Your task to perform on an android device: turn on the 24-hour format for clock Image 0: 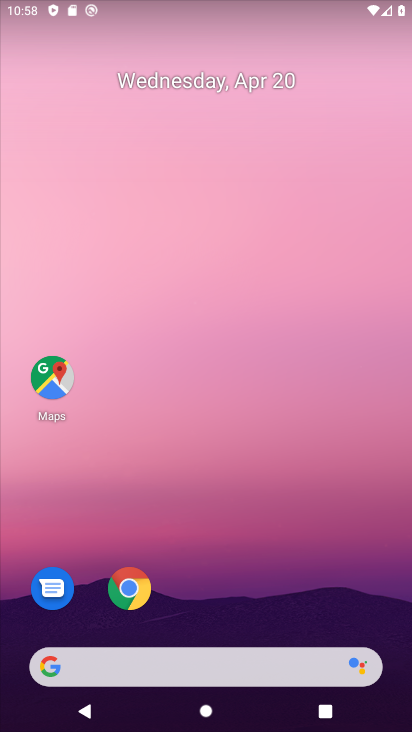
Step 0: drag from (235, 539) to (327, 99)
Your task to perform on an android device: turn on the 24-hour format for clock Image 1: 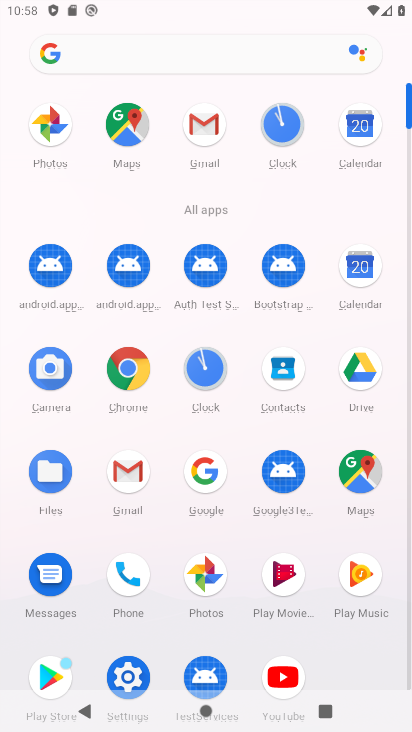
Step 1: click (201, 369)
Your task to perform on an android device: turn on the 24-hour format for clock Image 2: 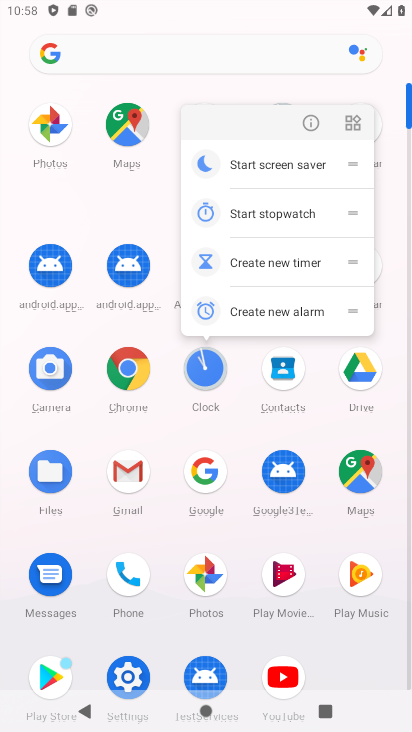
Step 2: click (210, 379)
Your task to perform on an android device: turn on the 24-hour format for clock Image 3: 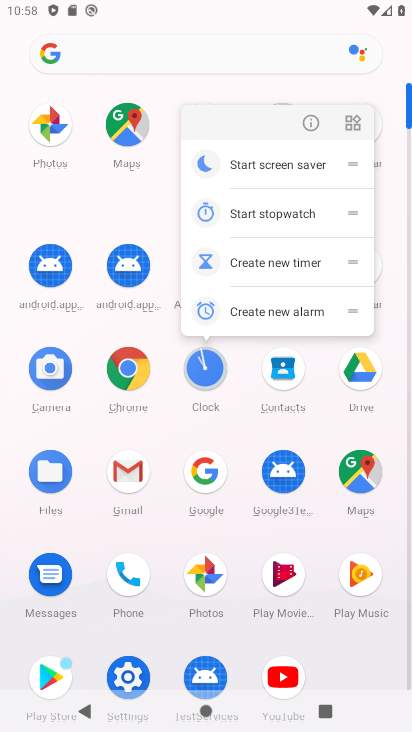
Step 3: click (209, 382)
Your task to perform on an android device: turn on the 24-hour format for clock Image 4: 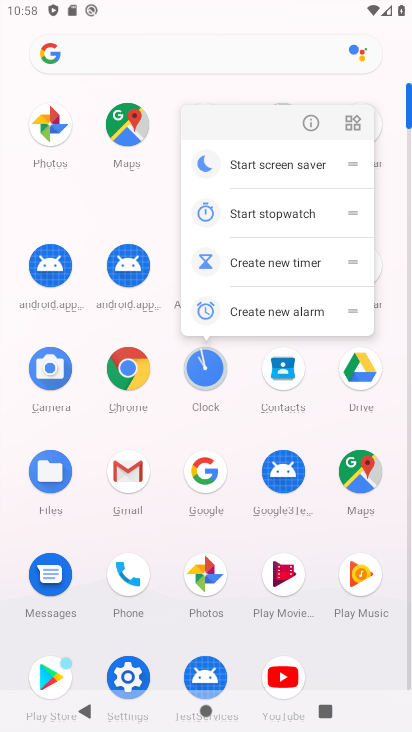
Step 4: click (208, 374)
Your task to perform on an android device: turn on the 24-hour format for clock Image 5: 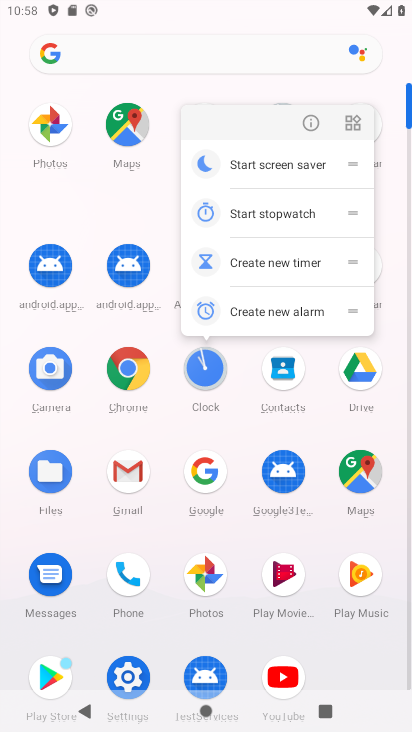
Step 5: click (222, 379)
Your task to perform on an android device: turn on the 24-hour format for clock Image 6: 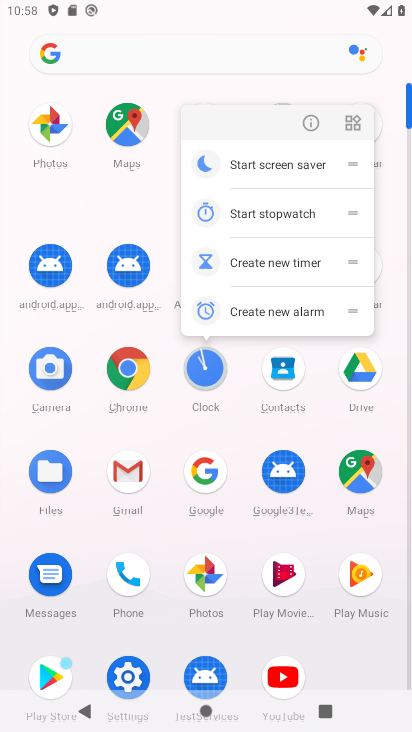
Step 6: click (200, 374)
Your task to perform on an android device: turn on the 24-hour format for clock Image 7: 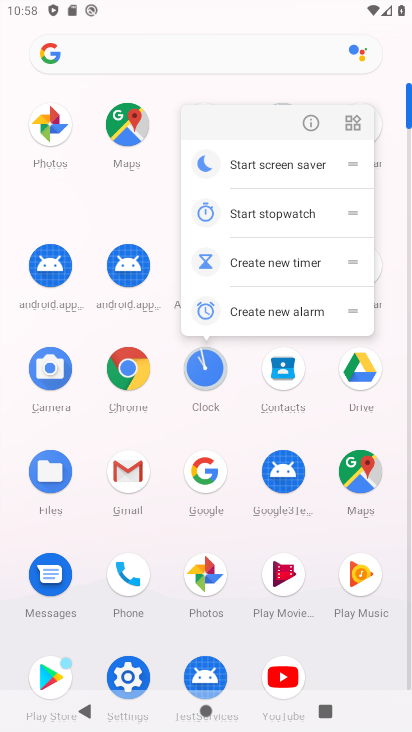
Step 7: click (197, 389)
Your task to perform on an android device: turn on the 24-hour format for clock Image 8: 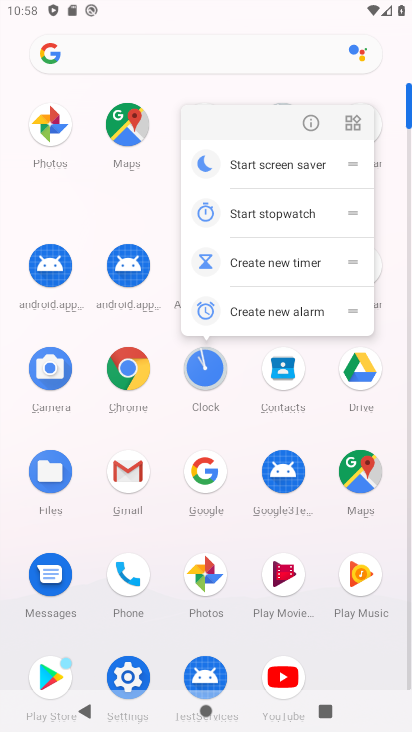
Step 8: click (205, 372)
Your task to perform on an android device: turn on the 24-hour format for clock Image 9: 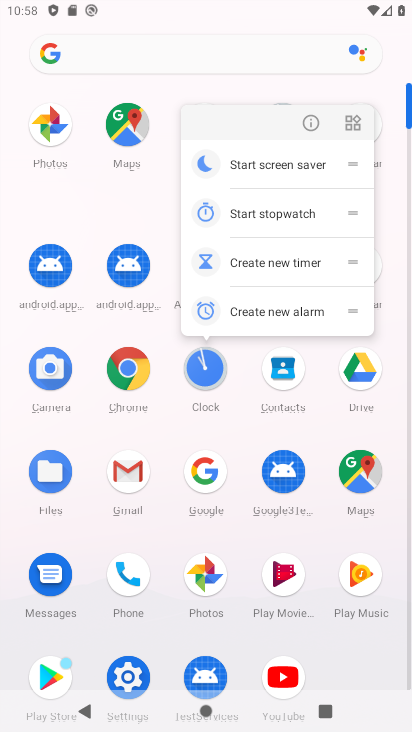
Step 9: click (204, 373)
Your task to perform on an android device: turn on the 24-hour format for clock Image 10: 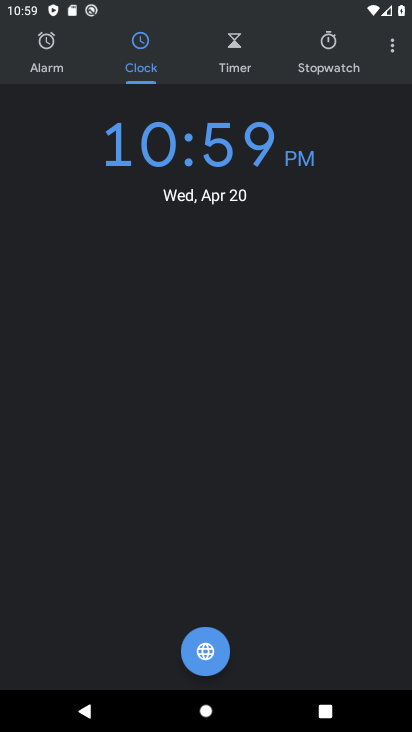
Step 10: click (390, 48)
Your task to perform on an android device: turn on the 24-hour format for clock Image 11: 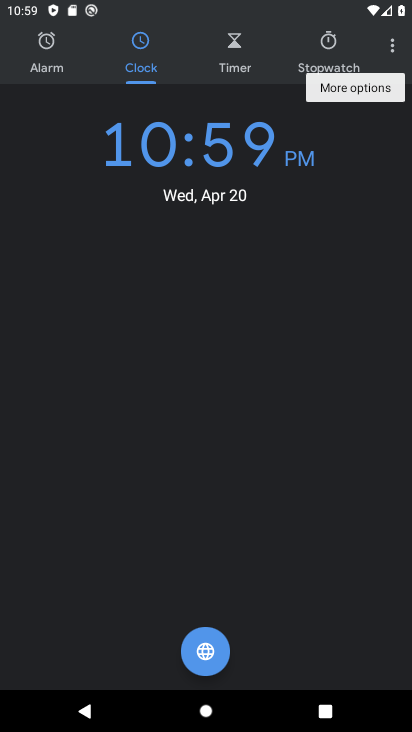
Step 11: click (374, 93)
Your task to perform on an android device: turn on the 24-hour format for clock Image 12: 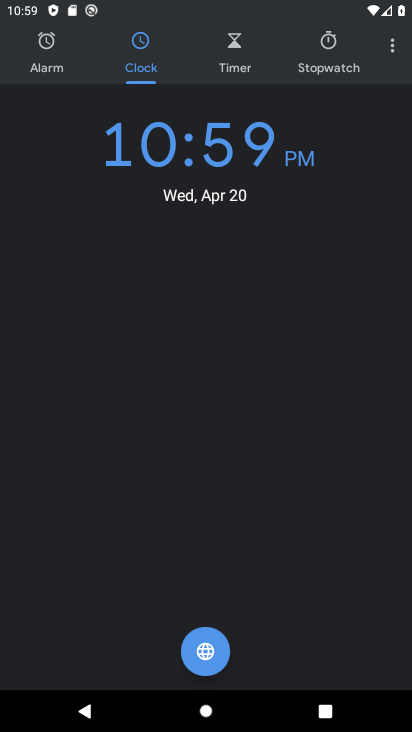
Step 12: click (400, 48)
Your task to perform on an android device: turn on the 24-hour format for clock Image 13: 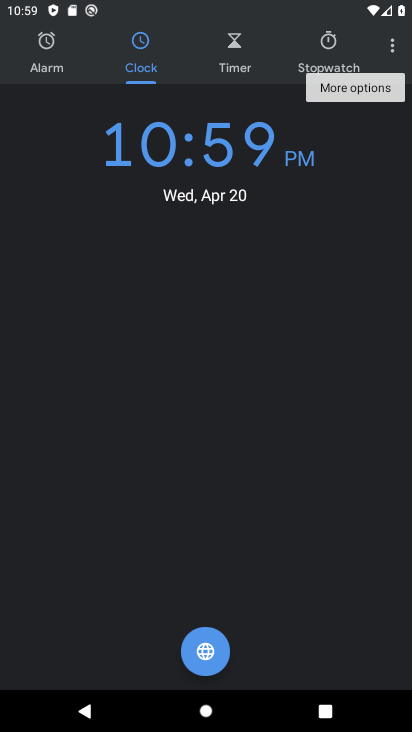
Step 13: click (383, 96)
Your task to perform on an android device: turn on the 24-hour format for clock Image 14: 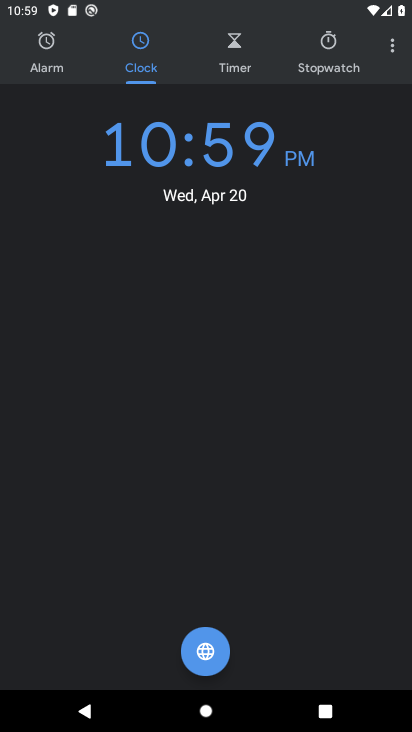
Step 14: click (394, 54)
Your task to perform on an android device: turn on the 24-hour format for clock Image 15: 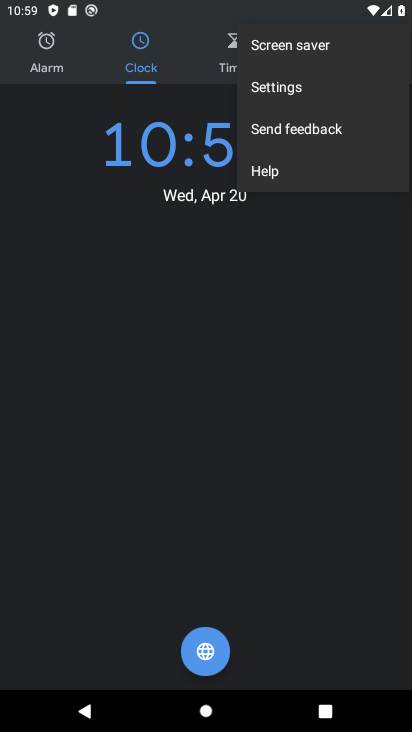
Step 15: click (331, 100)
Your task to perform on an android device: turn on the 24-hour format for clock Image 16: 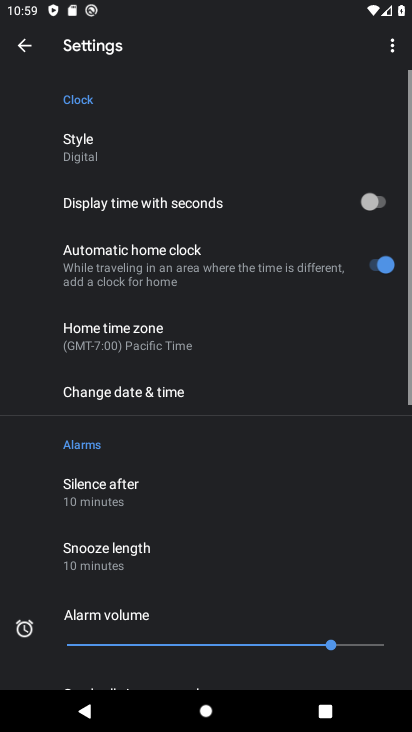
Step 16: click (232, 391)
Your task to perform on an android device: turn on the 24-hour format for clock Image 17: 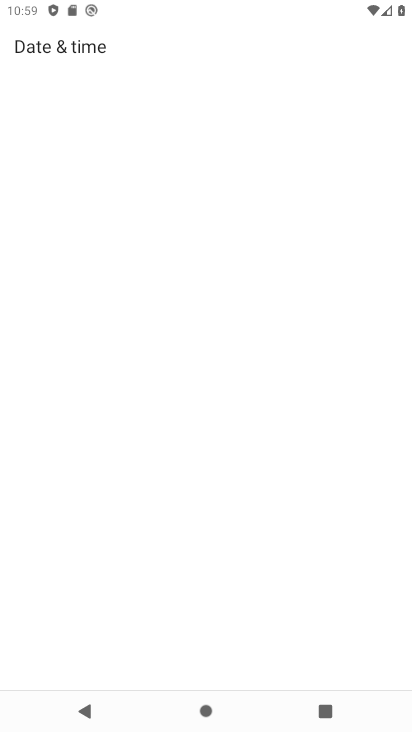
Step 17: drag from (212, 610) to (378, 81)
Your task to perform on an android device: turn on the 24-hour format for clock Image 18: 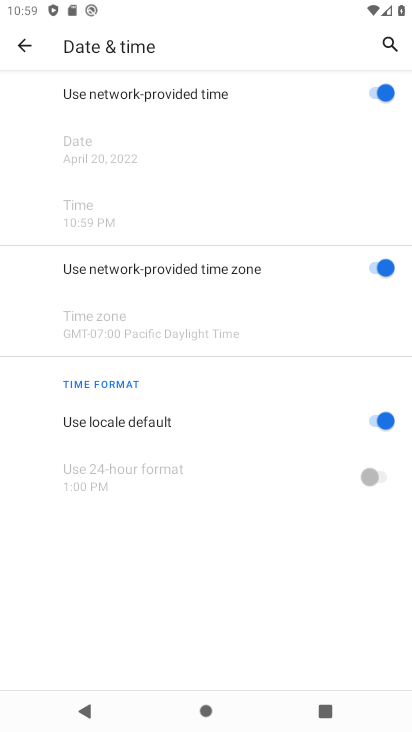
Step 18: click (372, 419)
Your task to perform on an android device: turn on the 24-hour format for clock Image 19: 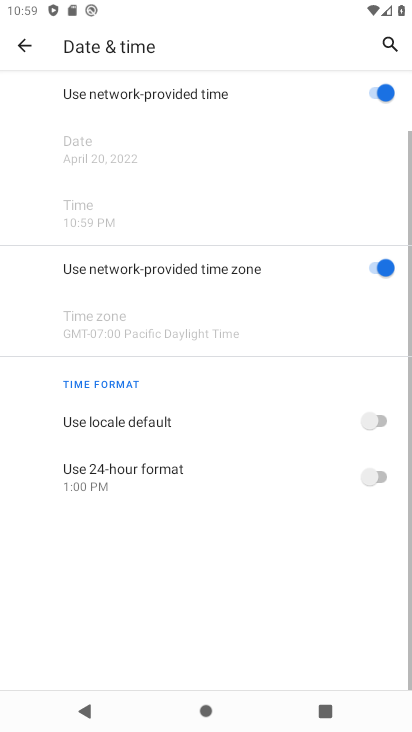
Step 19: click (386, 482)
Your task to perform on an android device: turn on the 24-hour format for clock Image 20: 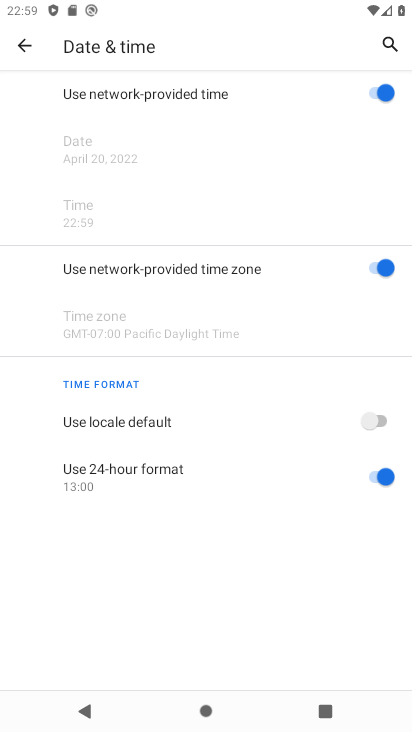
Step 20: task complete